Your task to perform on an android device: Turn off the flashlight Image 0: 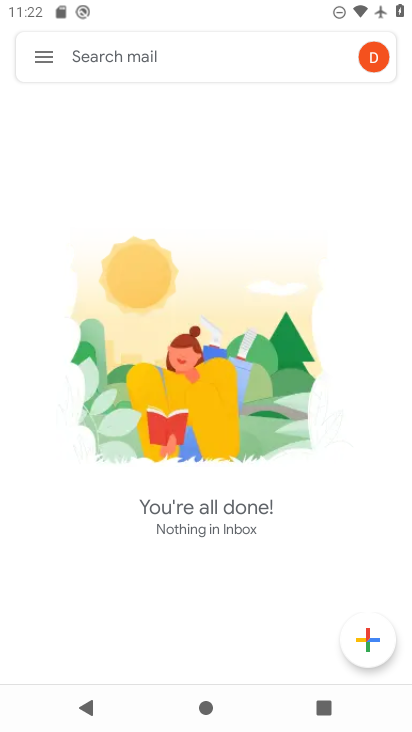
Step 0: press home button
Your task to perform on an android device: Turn off the flashlight Image 1: 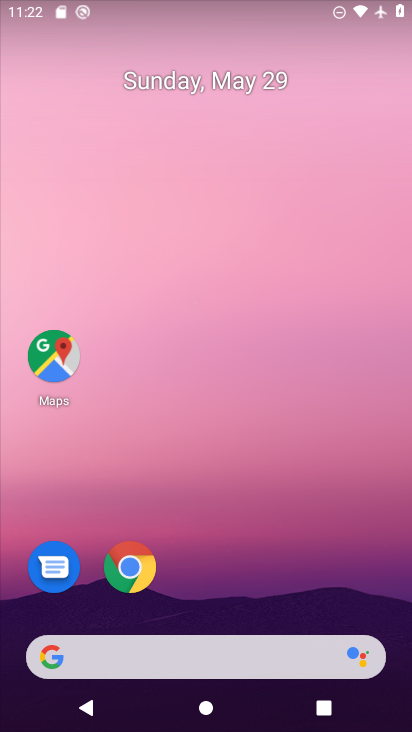
Step 1: drag from (376, 604) to (295, 7)
Your task to perform on an android device: Turn off the flashlight Image 2: 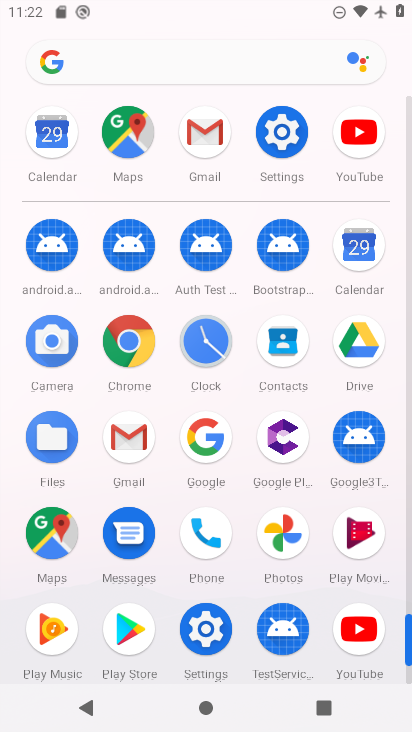
Step 2: press home button
Your task to perform on an android device: Turn off the flashlight Image 3: 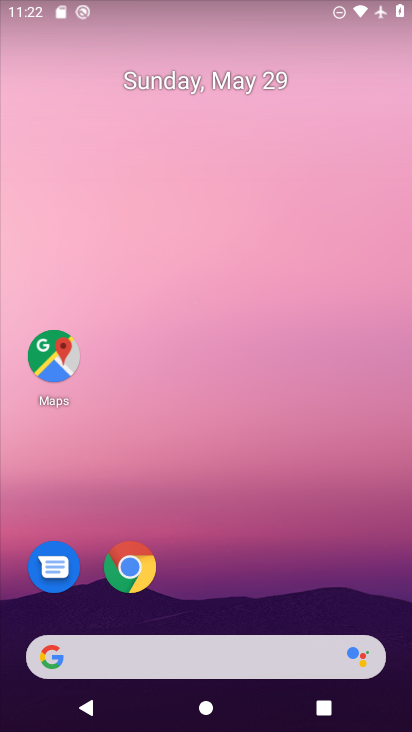
Step 3: drag from (241, 19) to (283, 625)
Your task to perform on an android device: Turn off the flashlight Image 4: 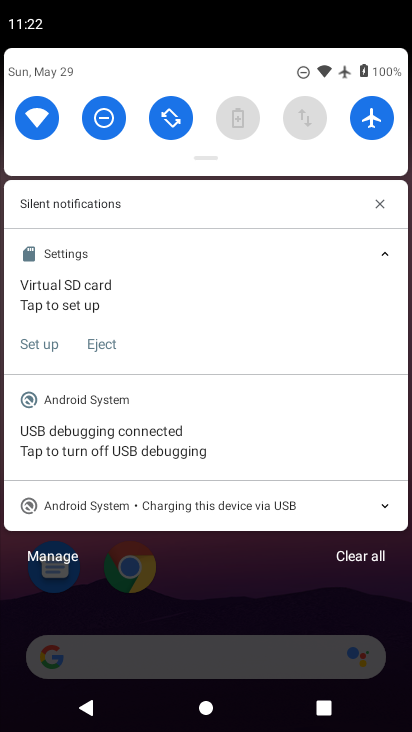
Step 4: drag from (211, 165) to (238, 592)
Your task to perform on an android device: Turn off the flashlight Image 5: 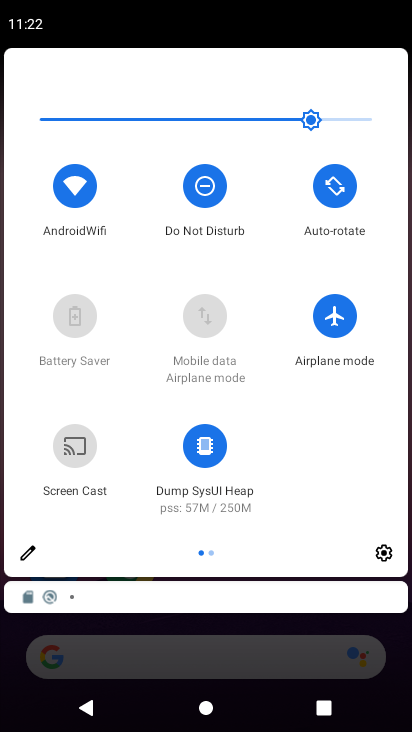
Step 5: click (23, 551)
Your task to perform on an android device: Turn off the flashlight Image 6: 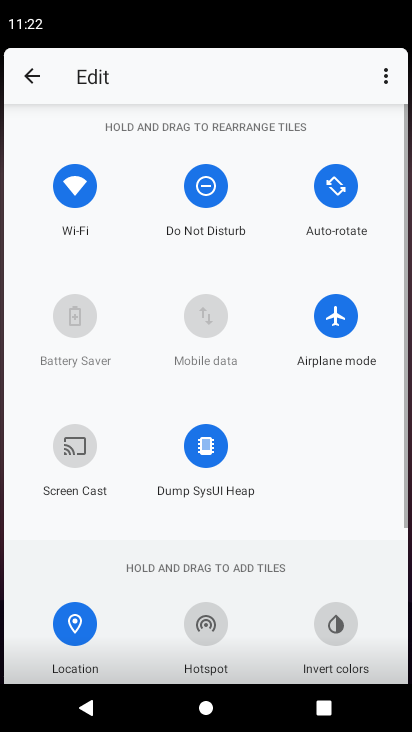
Step 6: task complete